Your task to perform on an android device: Is it going to rain this weekend? Image 0: 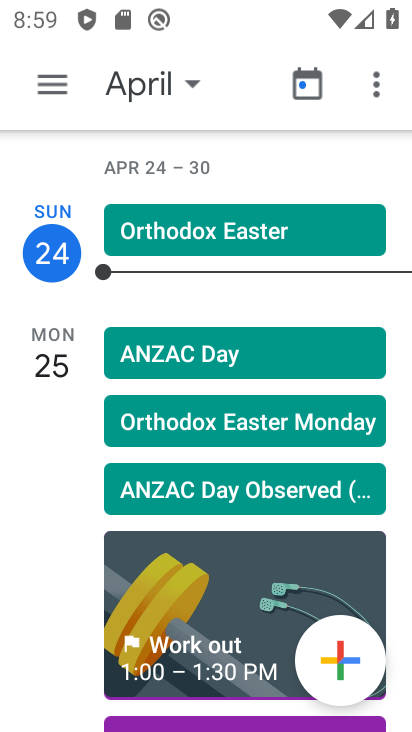
Step 0: press home button
Your task to perform on an android device: Is it going to rain this weekend? Image 1: 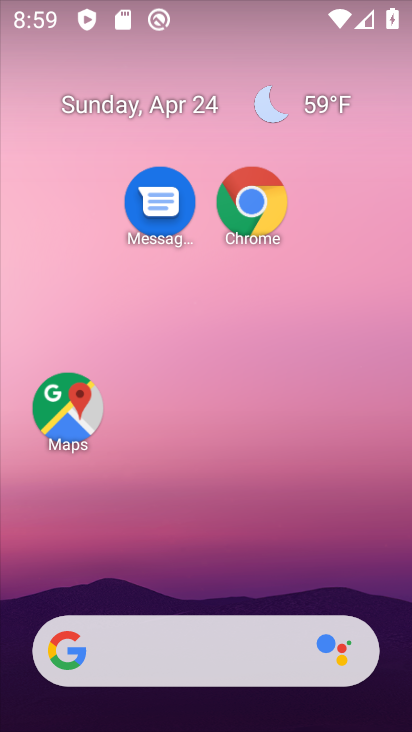
Step 1: click (265, 100)
Your task to perform on an android device: Is it going to rain this weekend? Image 2: 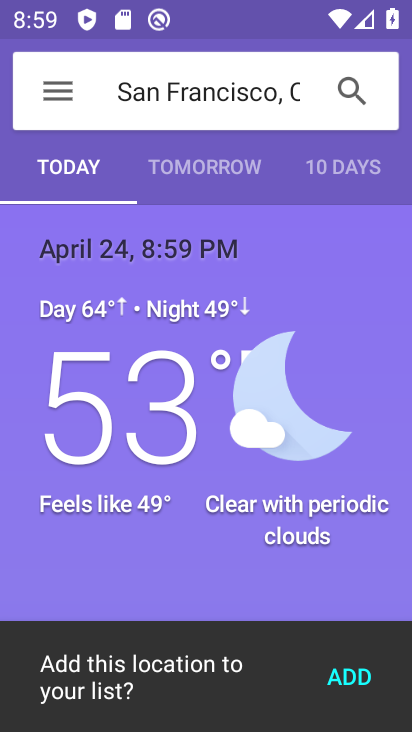
Step 2: click (336, 169)
Your task to perform on an android device: Is it going to rain this weekend? Image 3: 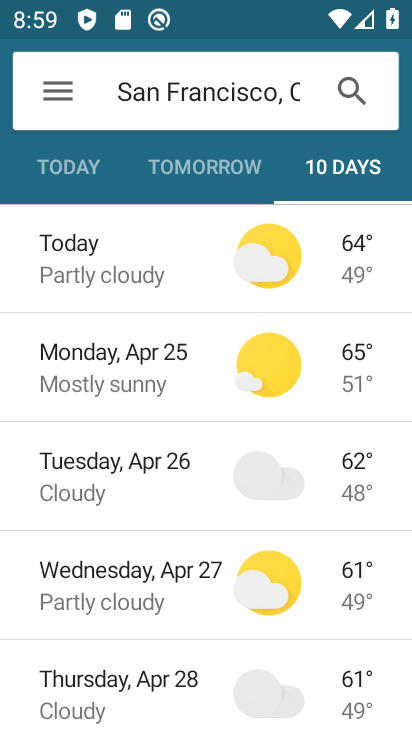
Step 3: drag from (152, 694) to (122, 304)
Your task to perform on an android device: Is it going to rain this weekend? Image 4: 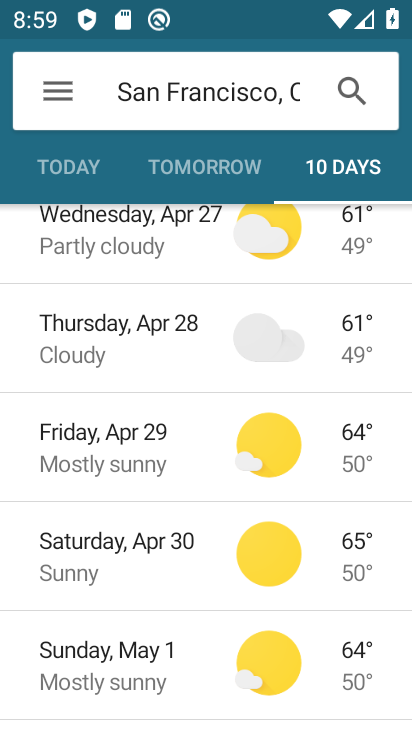
Step 4: click (121, 548)
Your task to perform on an android device: Is it going to rain this weekend? Image 5: 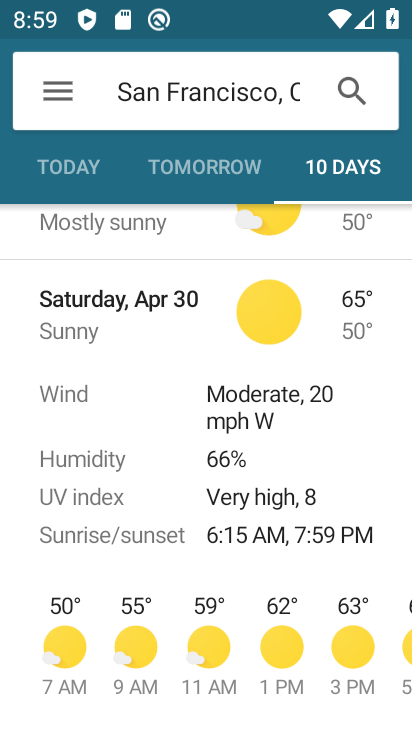
Step 5: task complete